Your task to perform on an android device: Show me recent news Image 0: 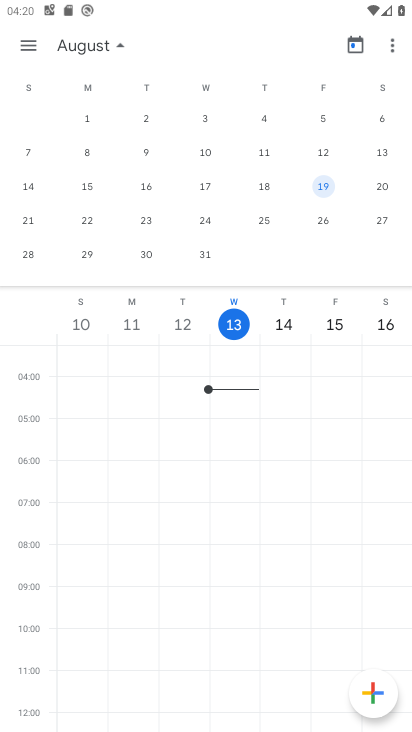
Step 0: press home button
Your task to perform on an android device: Show me recent news Image 1: 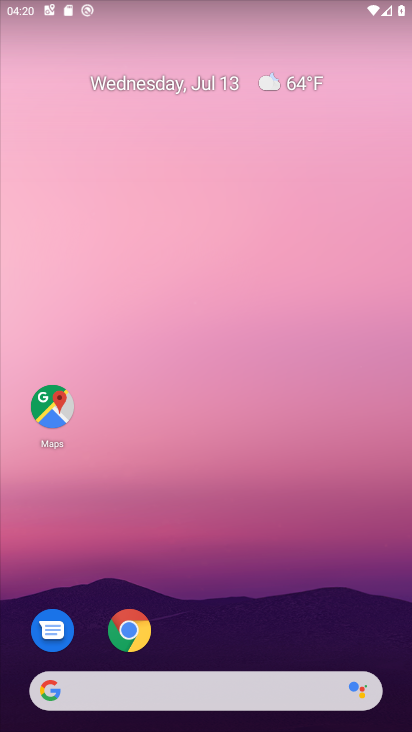
Step 1: click (164, 695)
Your task to perform on an android device: Show me recent news Image 2: 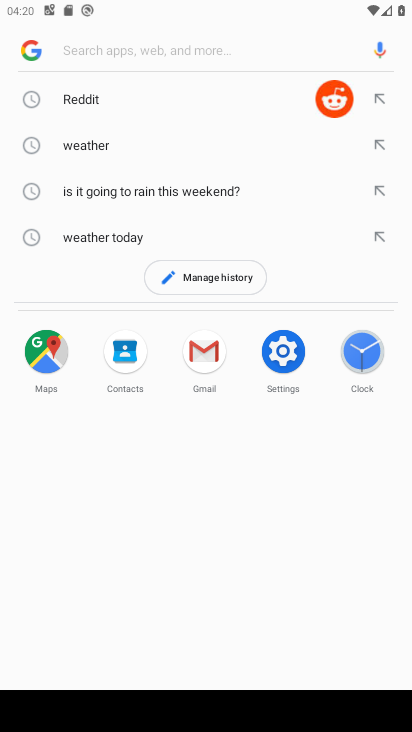
Step 2: click (29, 44)
Your task to perform on an android device: Show me recent news Image 3: 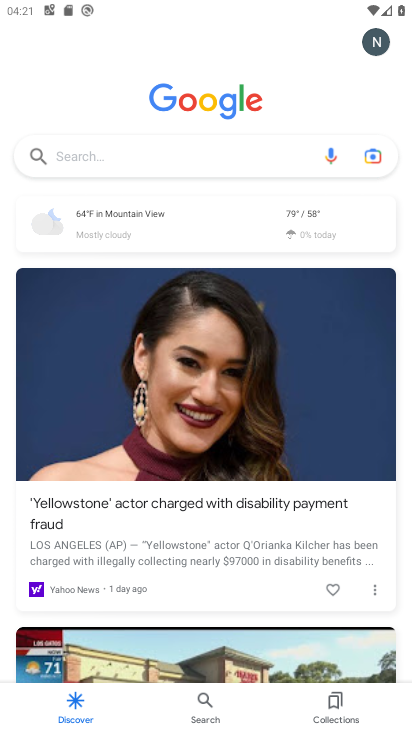
Step 3: task complete